Your task to perform on an android device: Go to privacy settings Image 0: 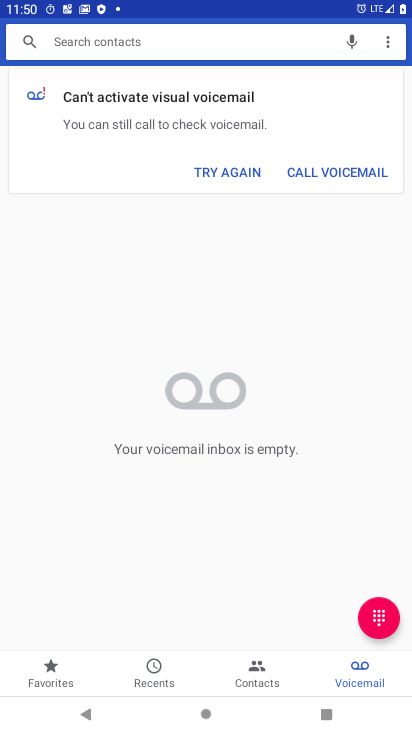
Step 0: press home button
Your task to perform on an android device: Go to privacy settings Image 1: 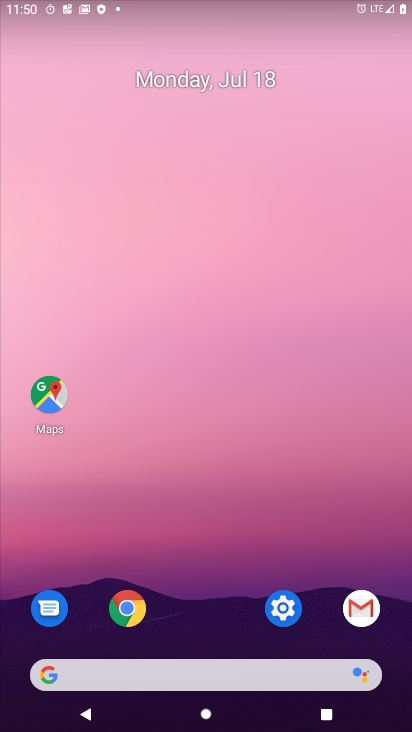
Step 1: click (292, 611)
Your task to perform on an android device: Go to privacy settings Image 2: 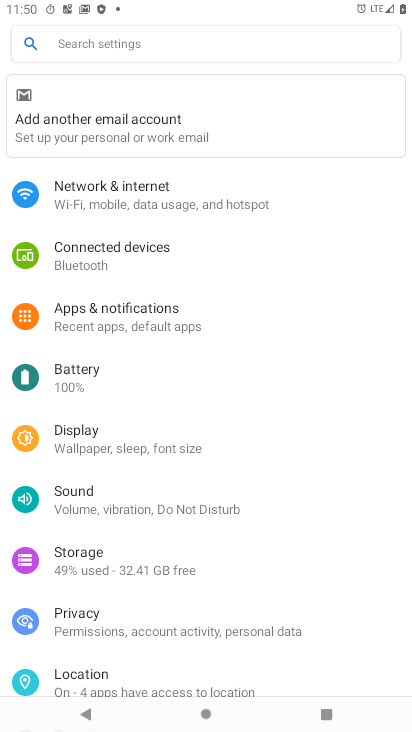
Step 2: click (104, 612)
Your task to perform on an android device: Go to privacy settings Image 3: 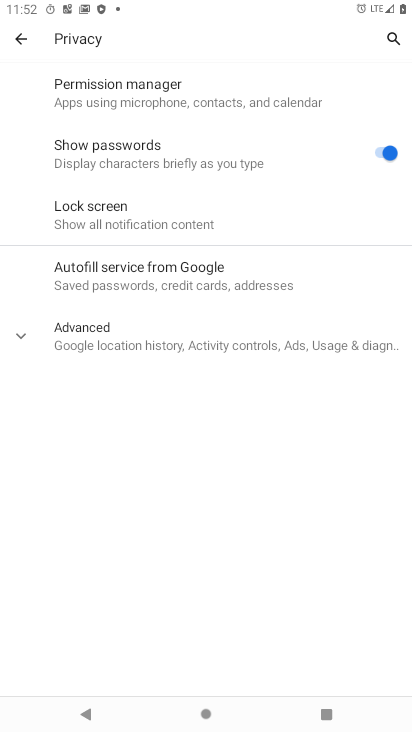
Step 3: task complete